Your task to perform on an android device: set default search engine in the chrome app Image 0: 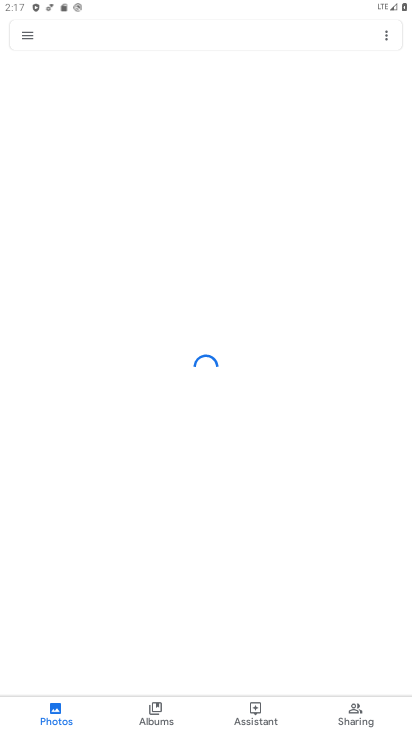
Step 0: press home button
Your task to perform on an android device: set default search engine in the chrome app Image 1: 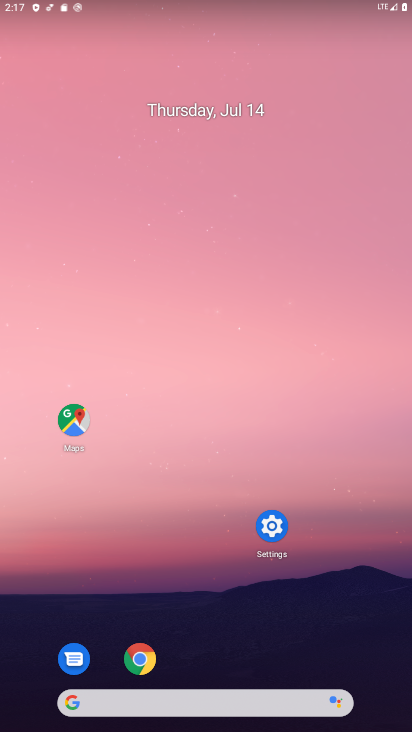
Step 1: click (140, 651)
Your task to perform on an android device: set default search engine in the chrome app Image 2: 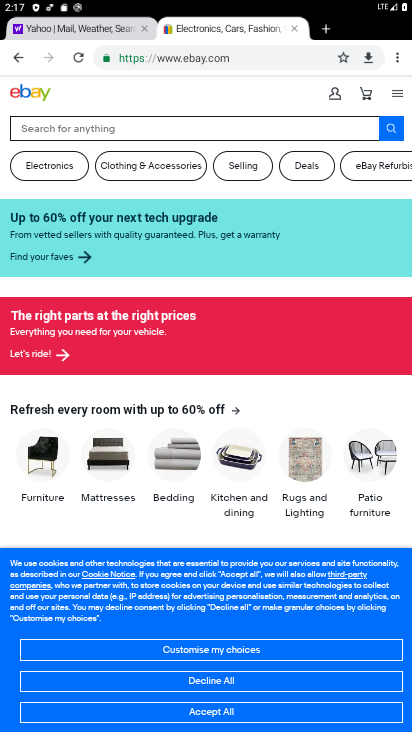
Step 2: click (403, 60)
Your task to perform on an android device: set default search engine in the chrome app Image 3: 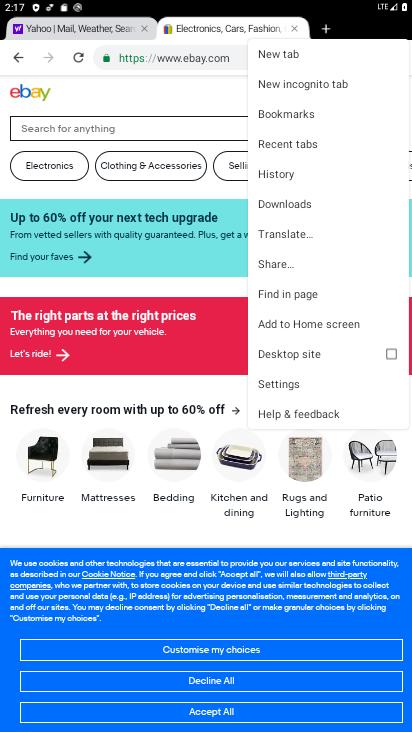
Step 3: click (289, 381)
Your task to perform on an android device: set default search engine in the chrome app Image 4: 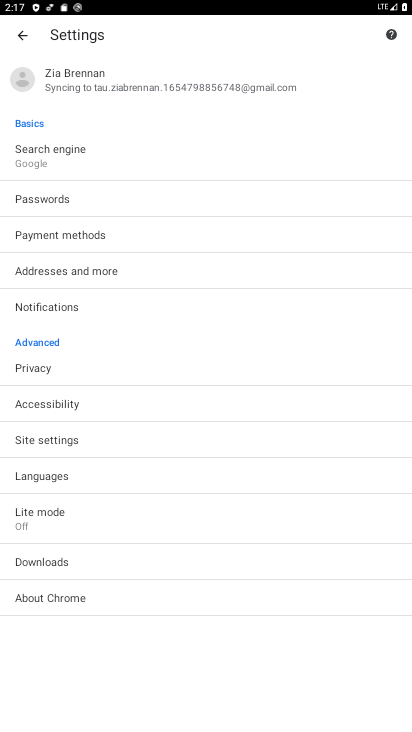
Step 4: click (36, 159)
Your task to perform on an android device: set default search engine in the chrome app Image 5: 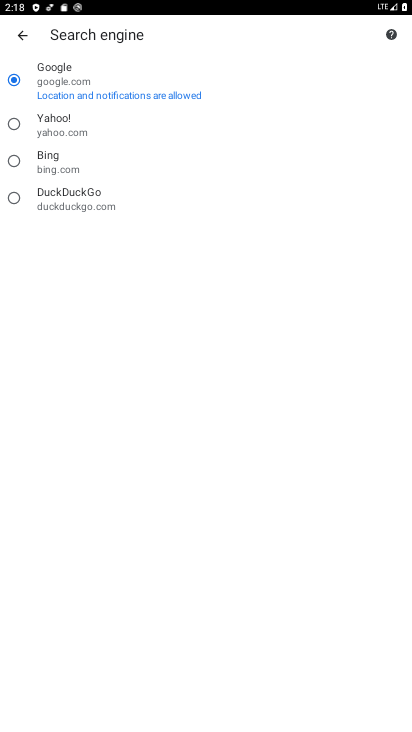
Step 5: task complete